Your task to perform on an android device: What's the weather like in Tokyo? Image 0: 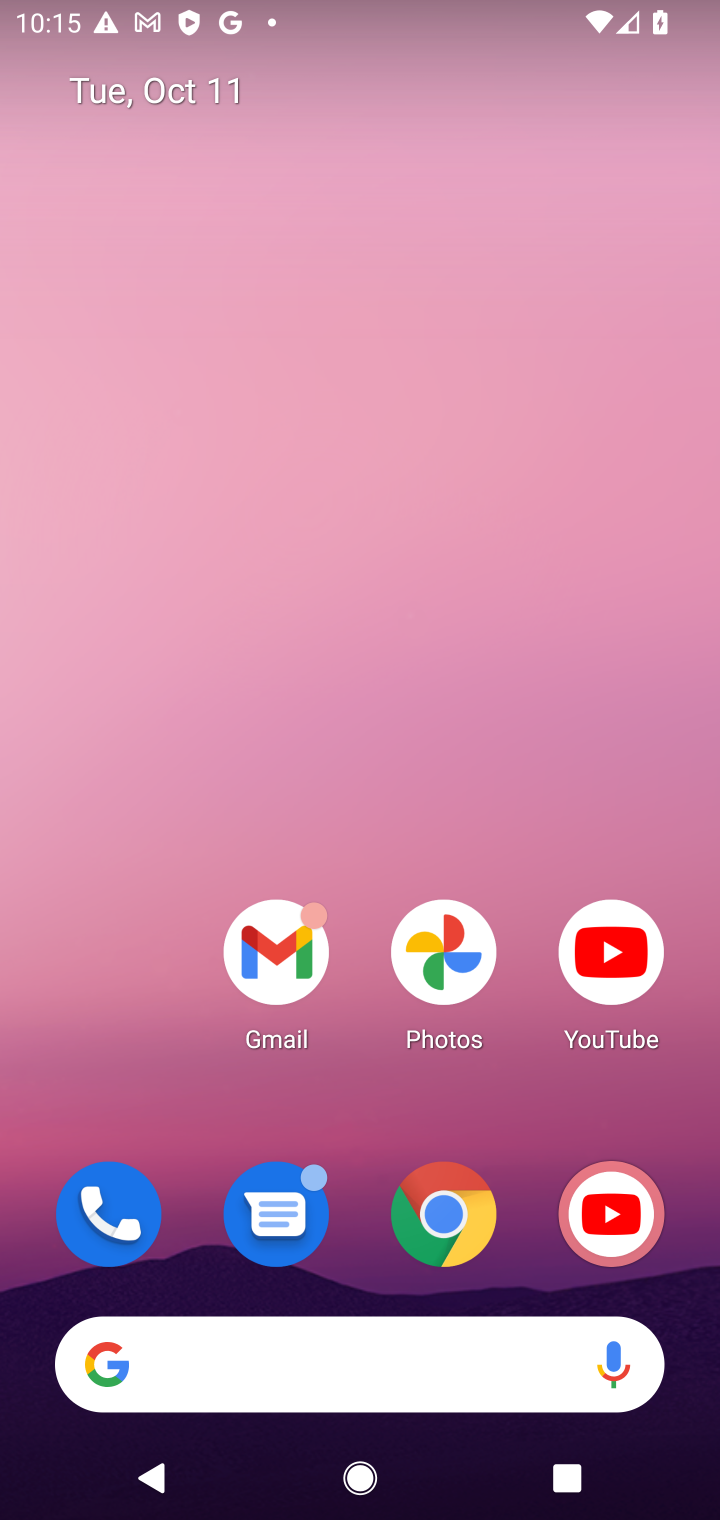
Step 0: drag from (376, 1100) to (713, 525)
Your task to perform on an android device: What's the weather like in Tokyo? Image 1: 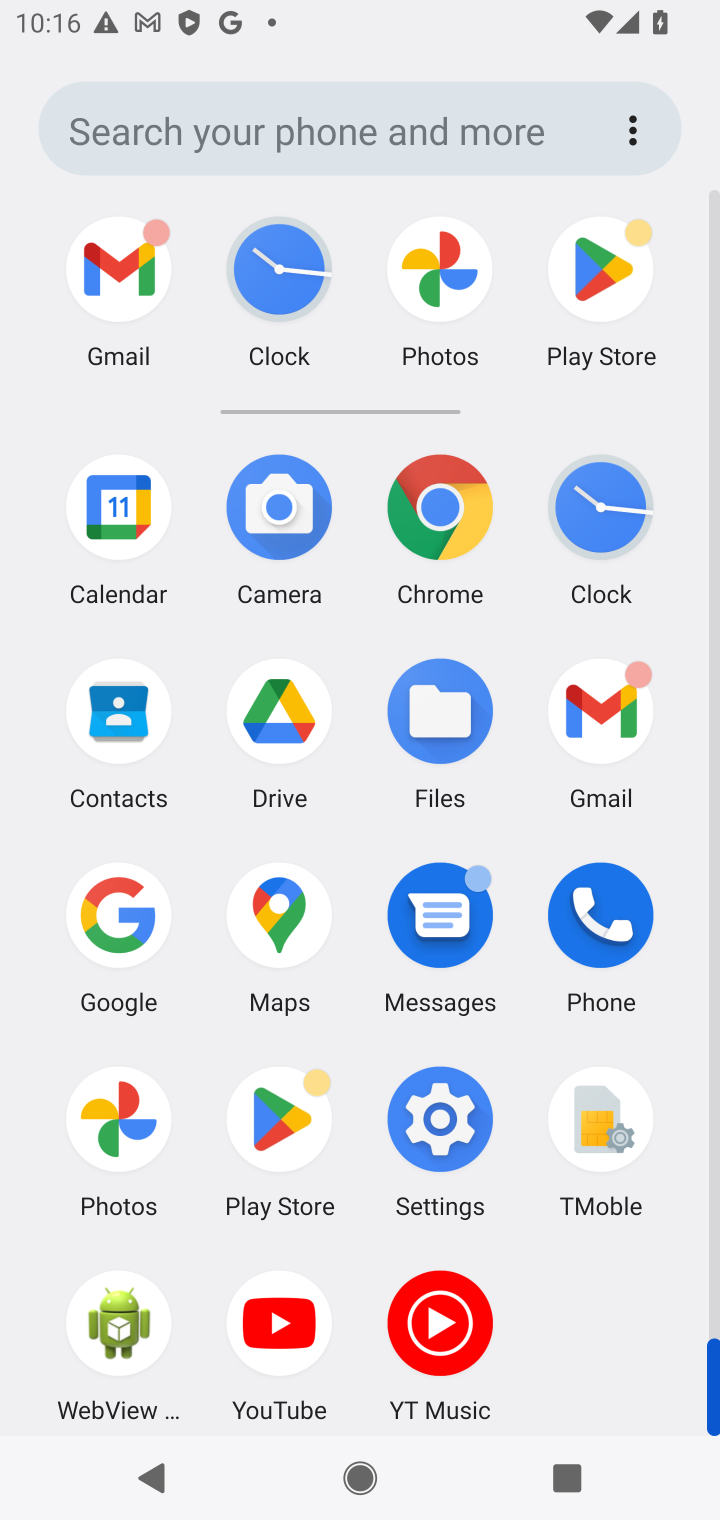
Step 1: click (143, 926)
Your task to perform on an android device: What's the weather like in Tokyo? Image 2: 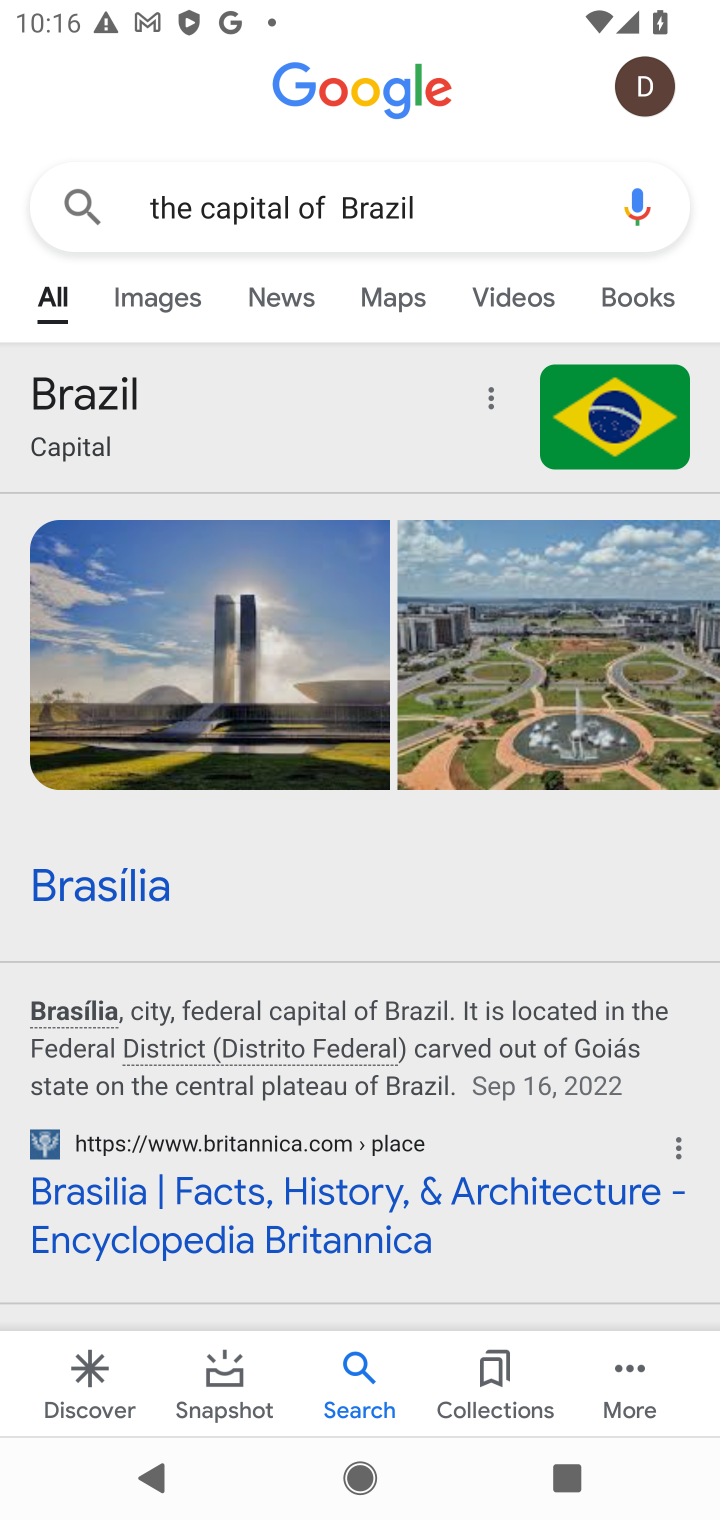
Step 2: click (377, 180)
Your task to perform on an android device: What's the weather like in Tokyo? Image 3: 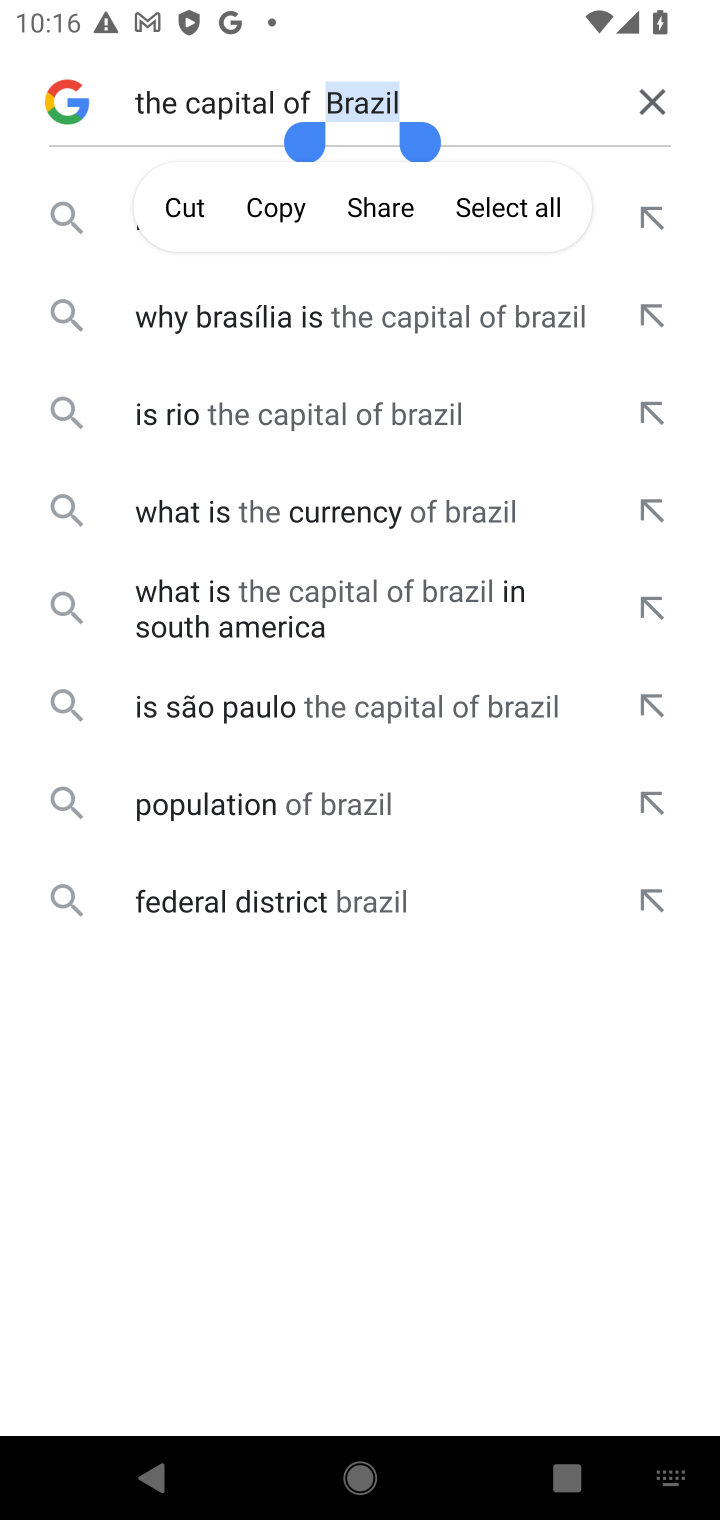
Step 3: click (648, 105)
Your task to perform on an android device: What's the weather like in Tokyo? Image 4: 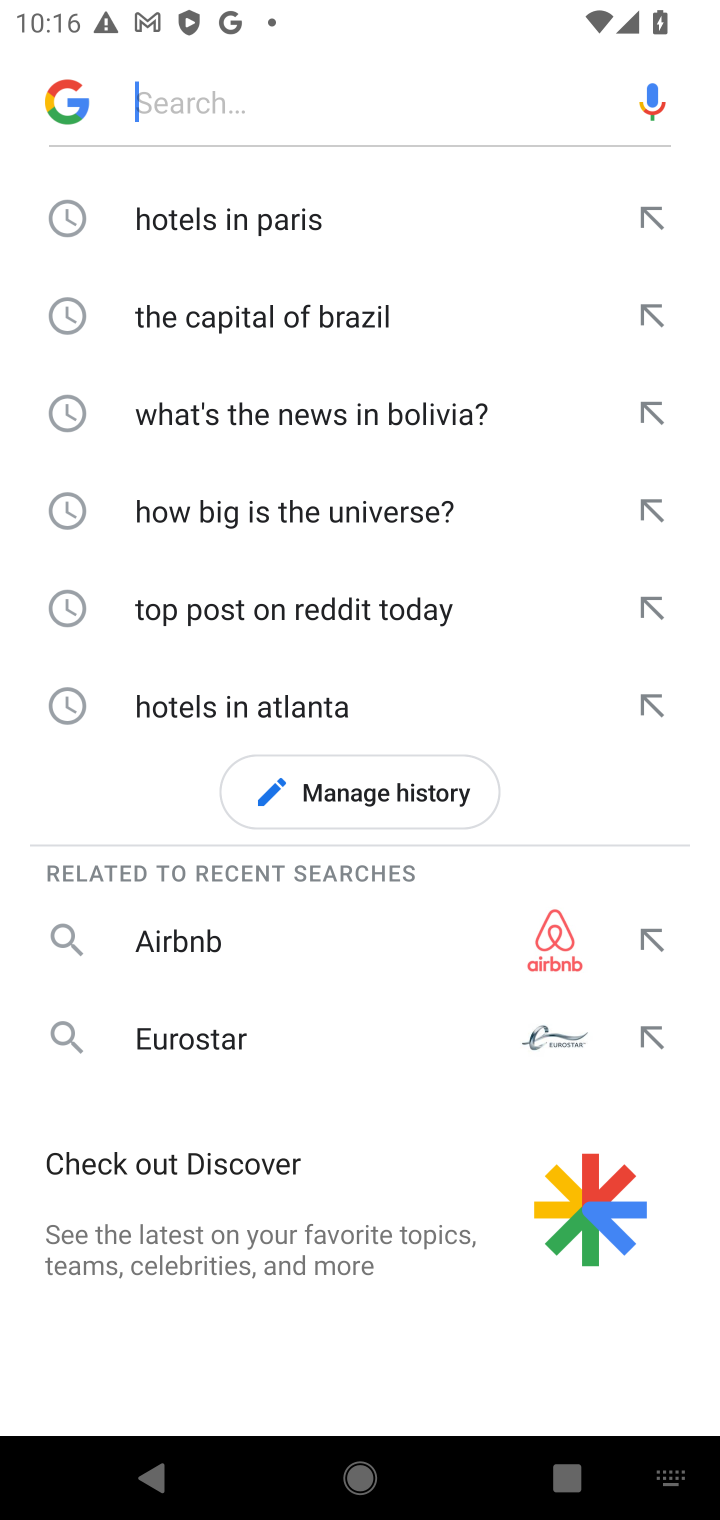
Step 4: type "What's the weather like in Tokyo?"
Your task to perform on an android device: What's the weather like in Tokyo? Image 5: 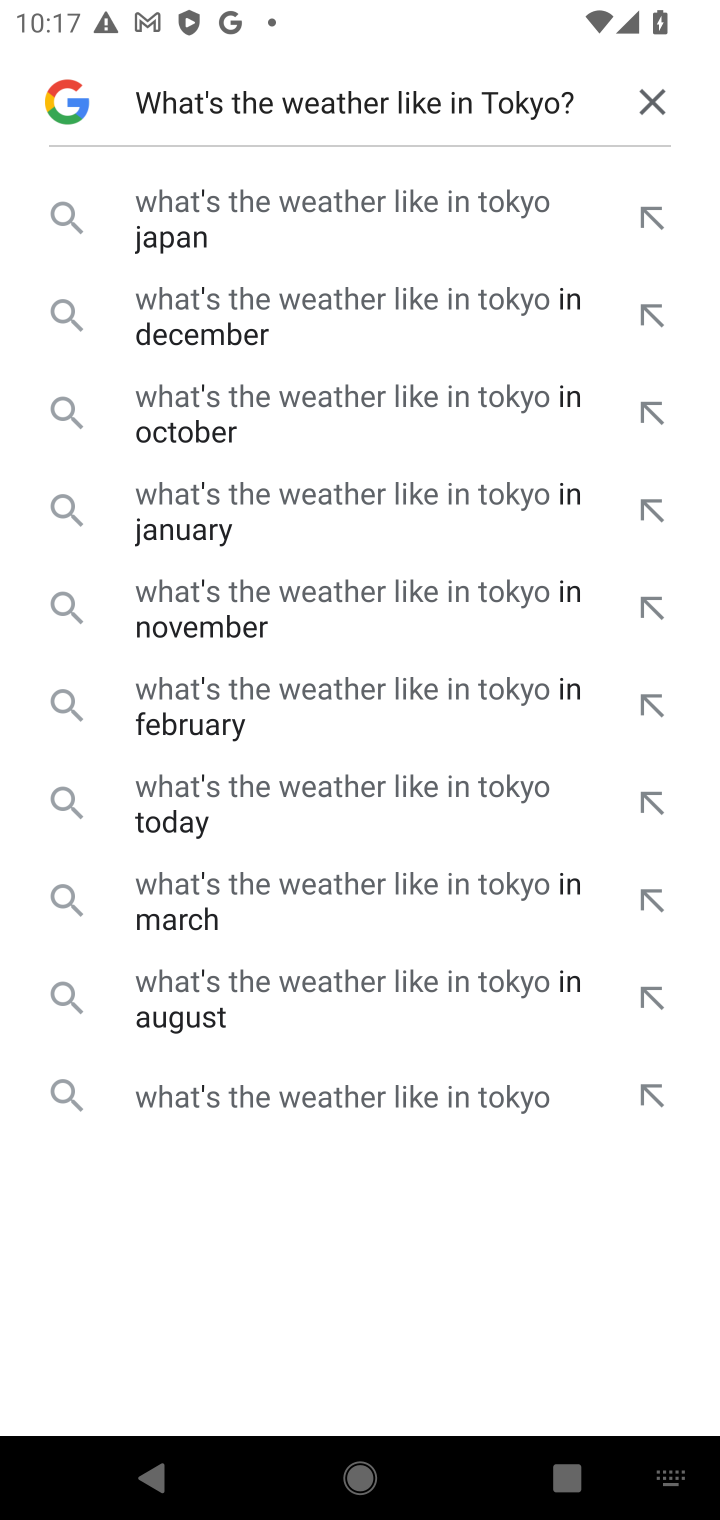
Step 5: press enter
Your task to perform on an android device: What's the weather like in Tokyo? Image 6: 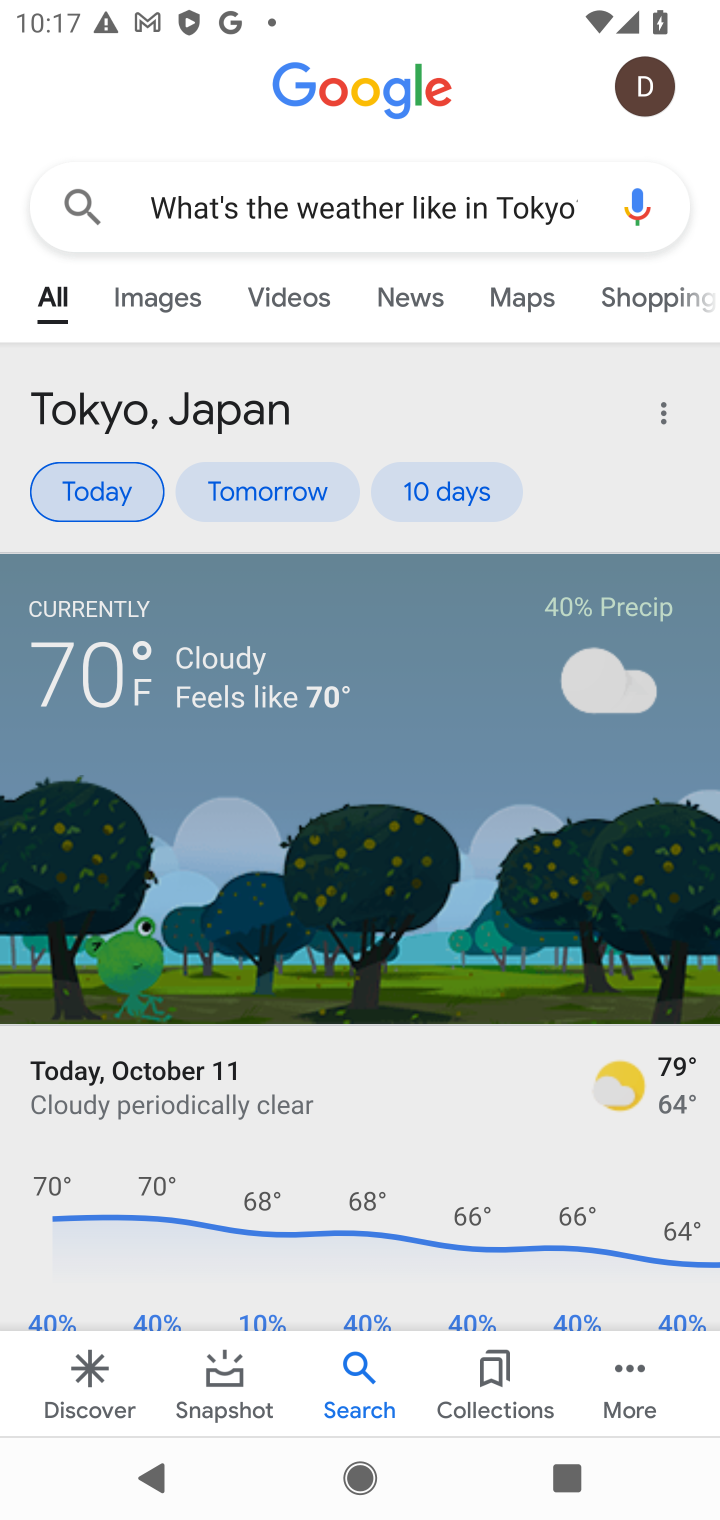
Step 6: task complete